Your task to perform on an android device: Open Youtube and go to "Your channel" Image 0: 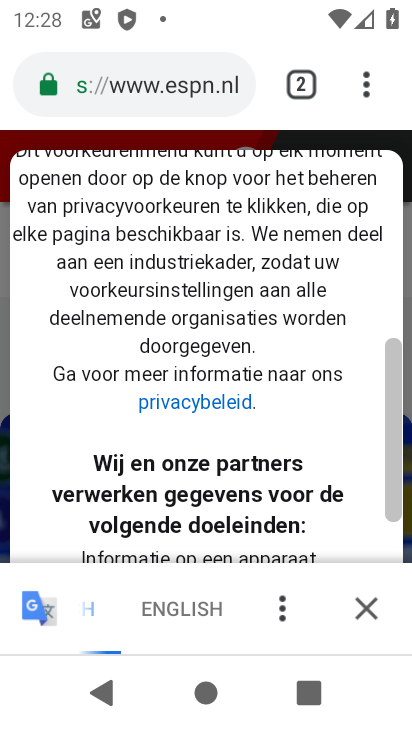
Step 0: press home button
Your task to perform on an android device: Open Youtube and go to "Your channel" Image 1: 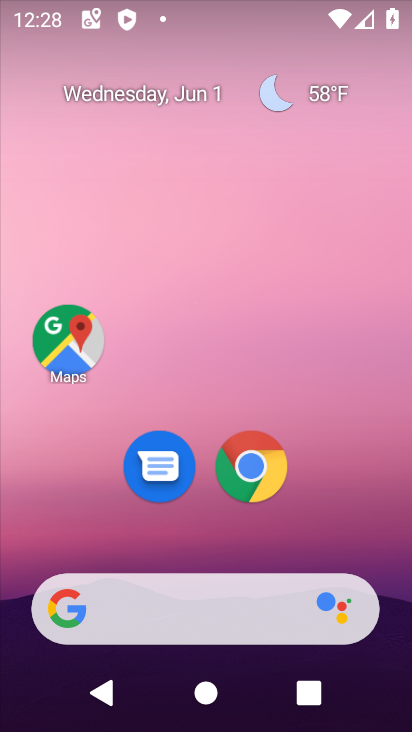
Step 1: drag from (380, 553) to (280, 214)
Your task to perform on an android device: Open Youtube and go to "Your channel" Image 2: 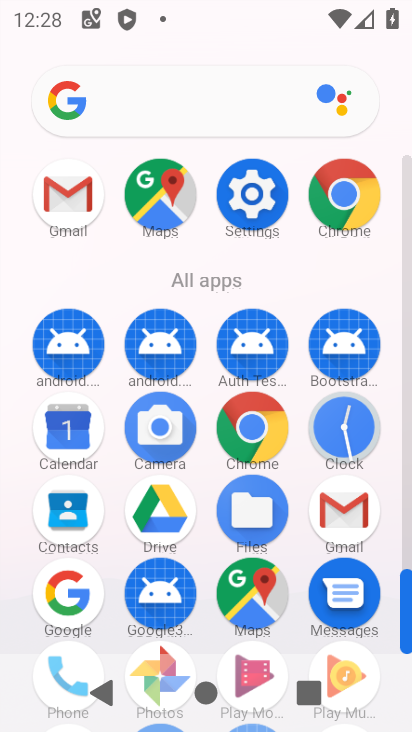
Step 2: drag from (393, 537) to (373, 322)
Your task to perform on an android device: Open Youtube and go to "Your channel" Image 3: 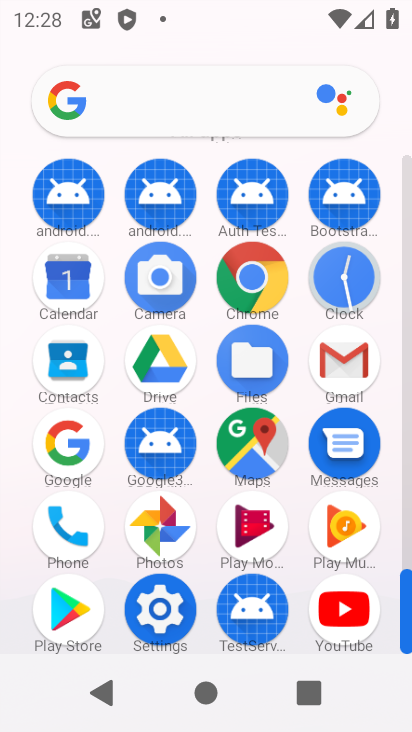
Step 3: click (358, 619)
Your task to perform on an android device: Open Youtube and go to "Your channel" Image 4: 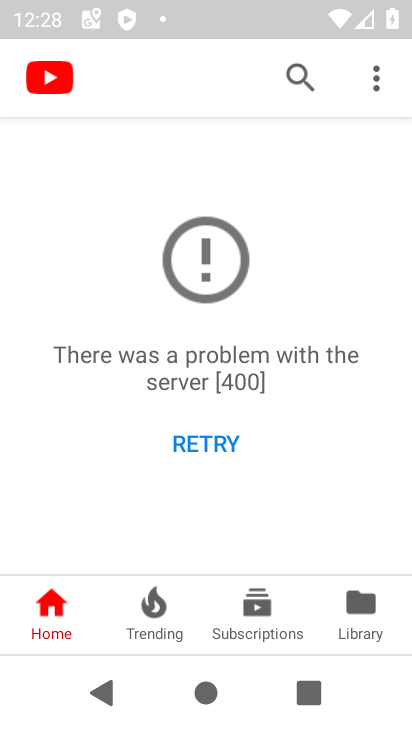
Step 4: click (358, 86)
Your task to perform on an android device: Open Youtube and go to "Your channel" Image 5: 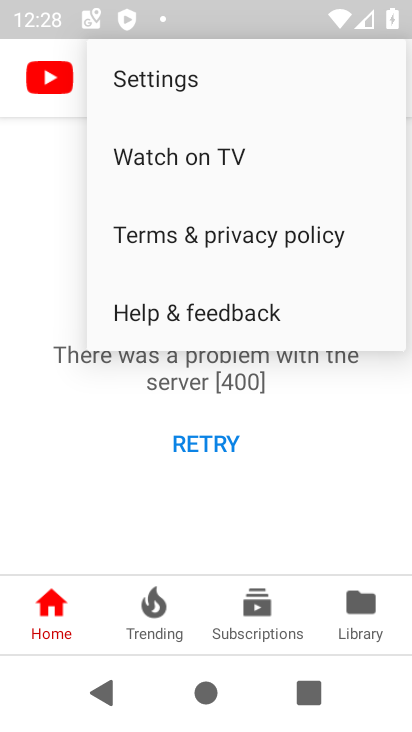
Step 5: task complete